Your task to perform on an android device: open app "Instagram" (install if not already installed) Image 0: 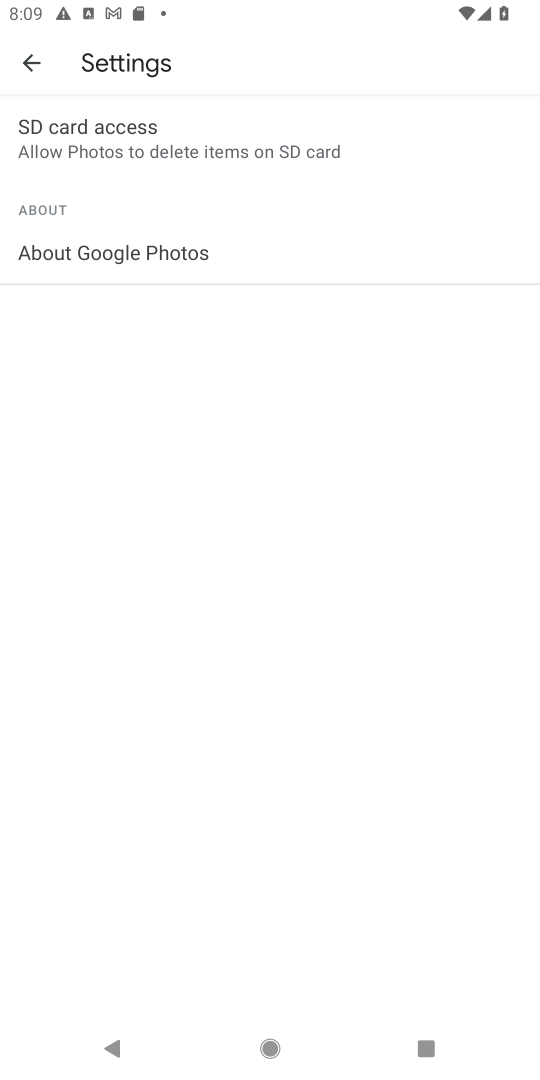
Step 0: press home button
Your task to perform on an android device: open app "Instagram" (install if not already installed) Image 1: 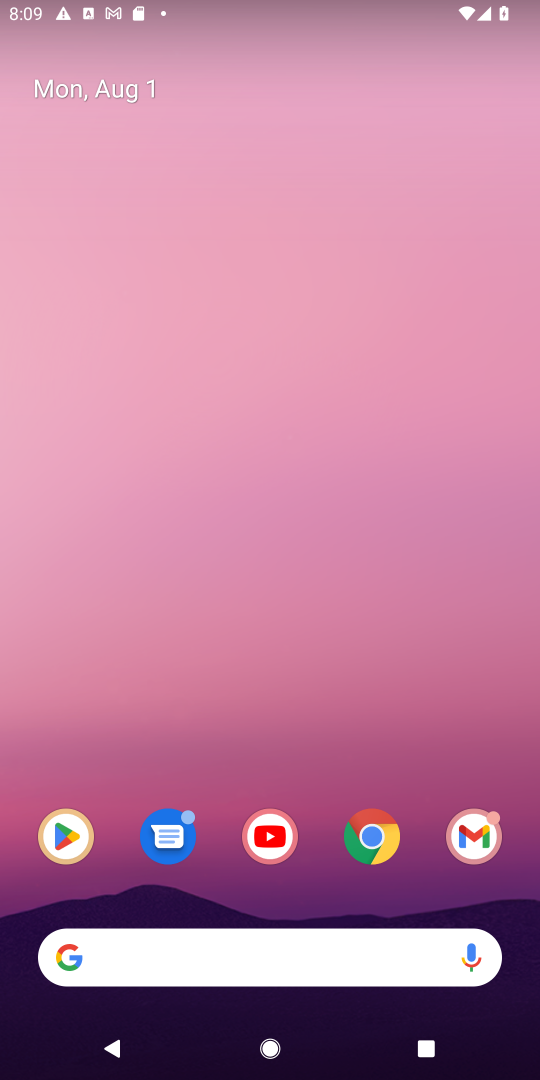
Step 1: click (65, 832)
Your task to perform on an android device: open app "Instagram" (install if not already installed) Image 2: 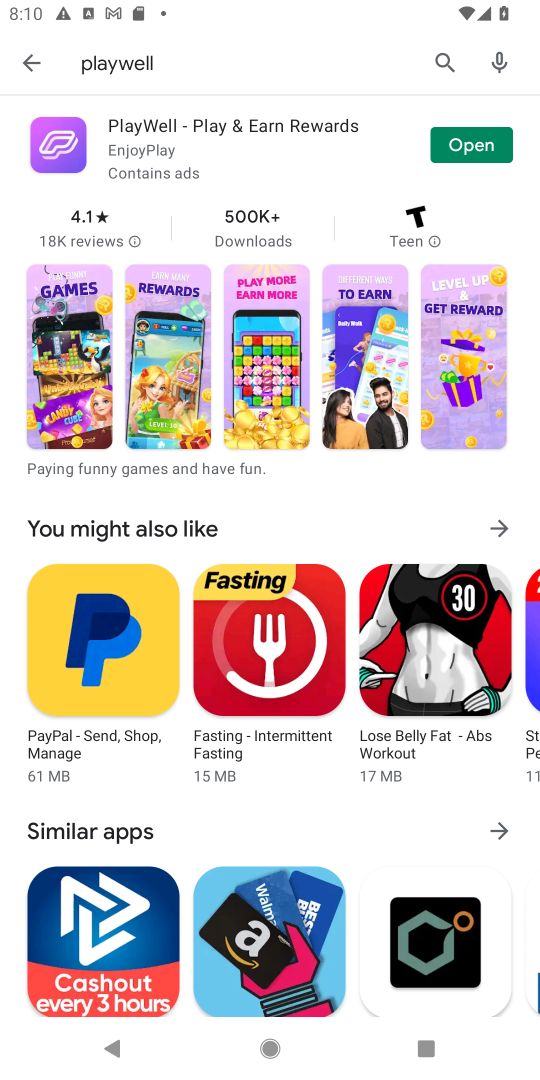
Step 2: click (441, 60)
Your task to perform on an android device: open app "Instagram" (install if not already installed) Image 3: 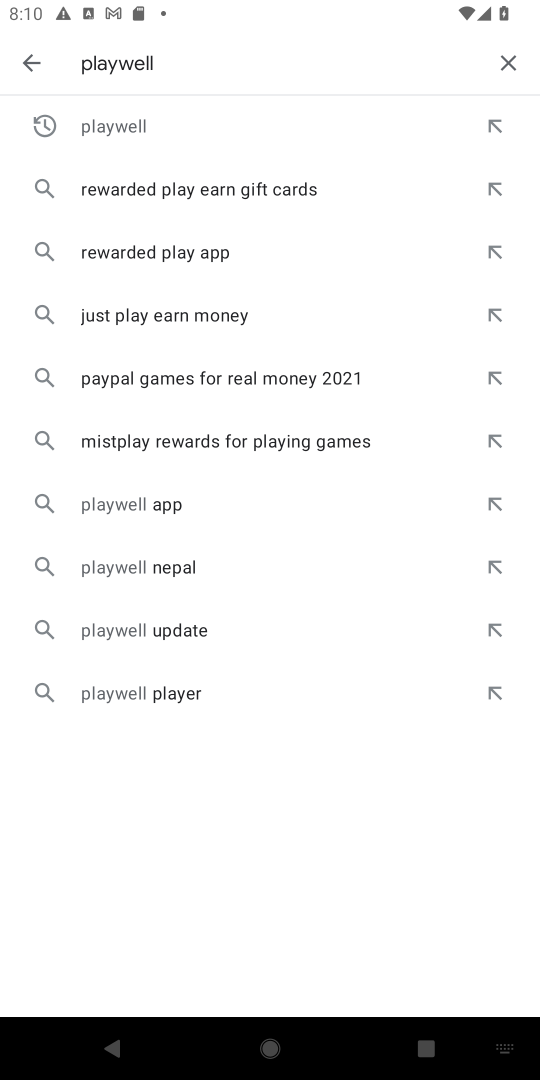
Step 3: click (502, 62)
Your task to perform on an android device: open app "Instagram" (install if not already installed) Image 4: 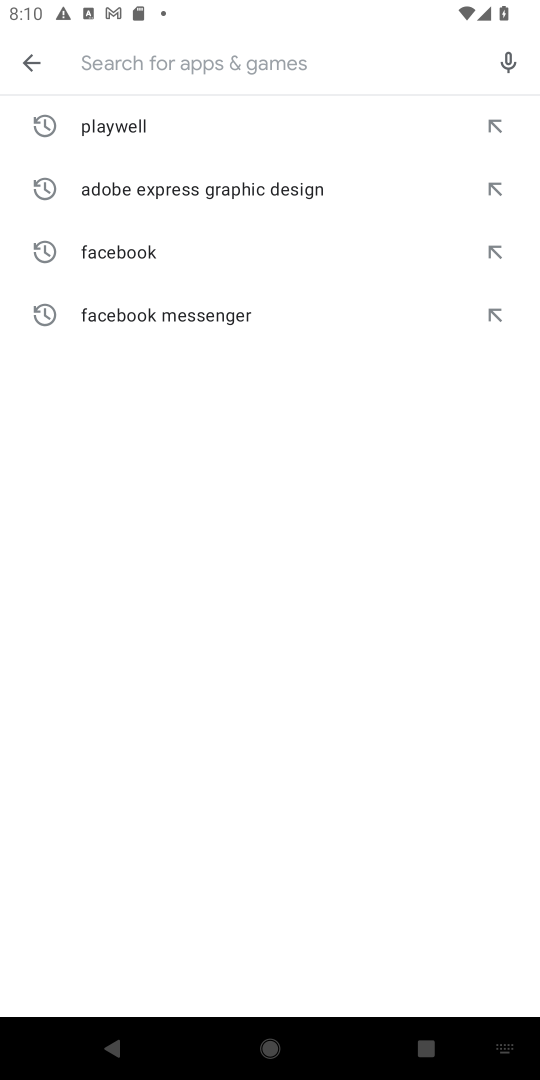
Step 4: type "Instagram"
Your task to perform on an android device: open app "Instagram" (install if not already installed) Image 5: 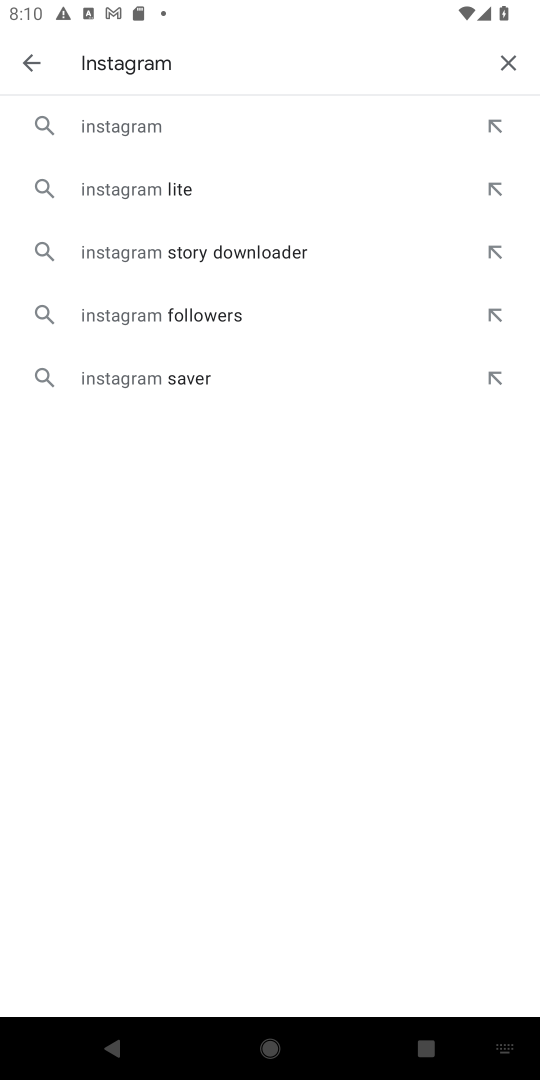
Step 5: click (174, 130)
Your task to perform on an android device: open app "Instagram" (install if not already installed) Image 6: 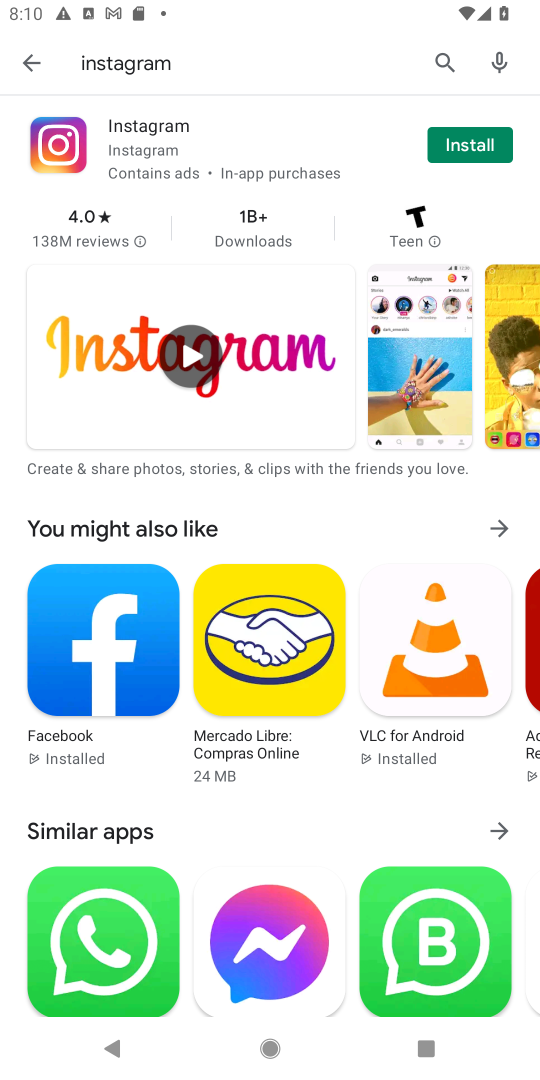
Step 6: click (460, 142)
Your task to perform on an android device: open app "Instagram" (install if not already installed) Image 7: 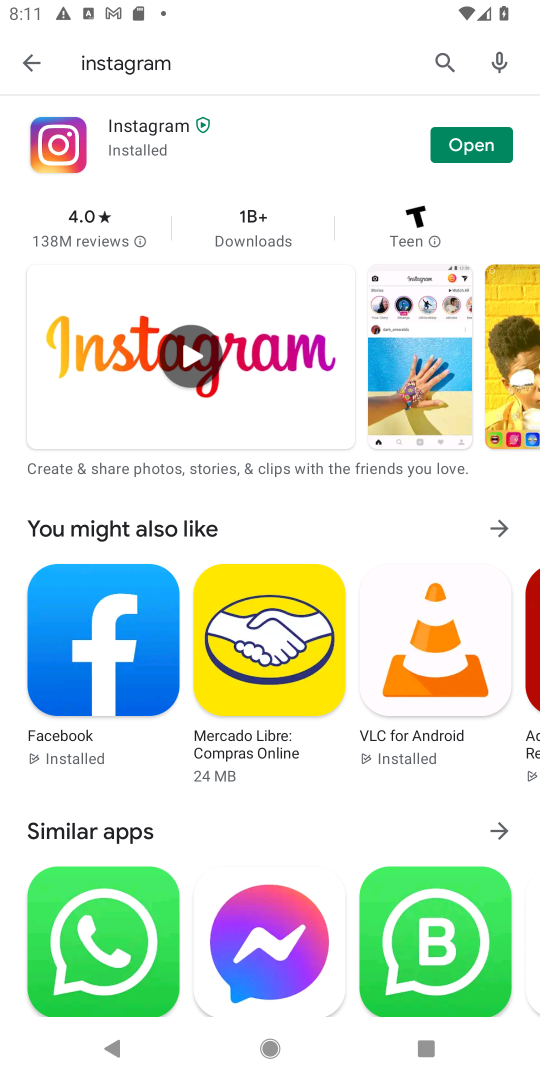
Step 7: click (463, 138)
Your task to perform on an android device: open app "Instagram" (install if not already installed) Image 8: 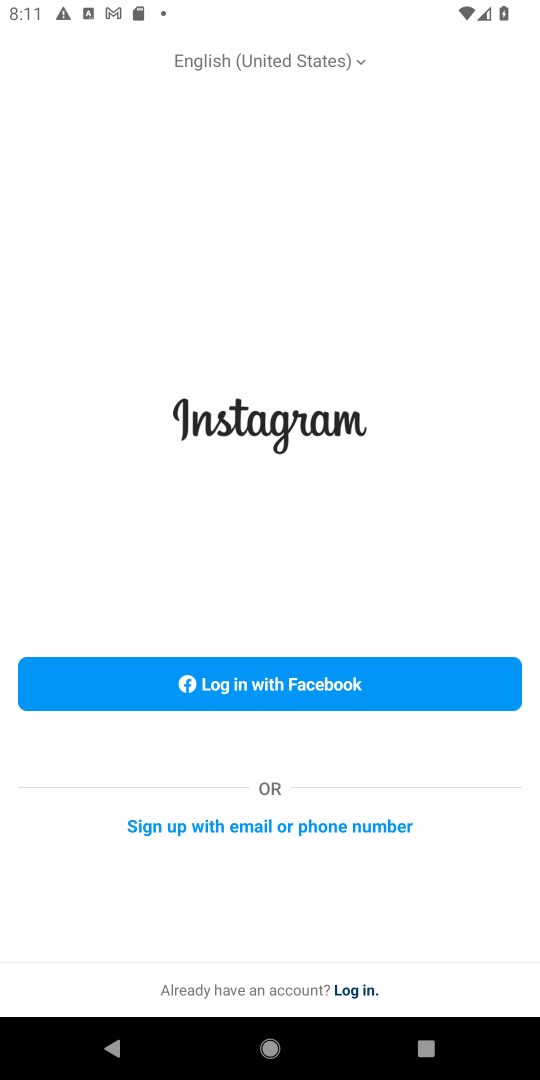
Step 8: task complete